Your task to perform on an android device: toggle improve location accuracy Image 0: 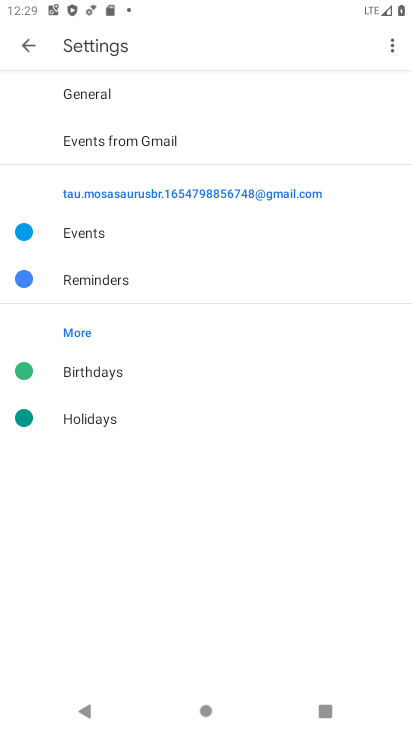
Step 0: press home button
Your task to perform on an android device: toggle improve location accuracy Image 1: 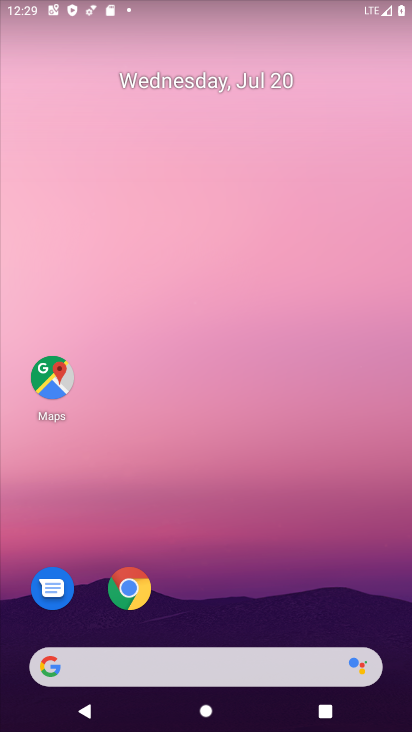
Step 1: drag from (391, 696) to (353, 111)
Your task to perform on an android device: toggle improve location accuracy Image 2: 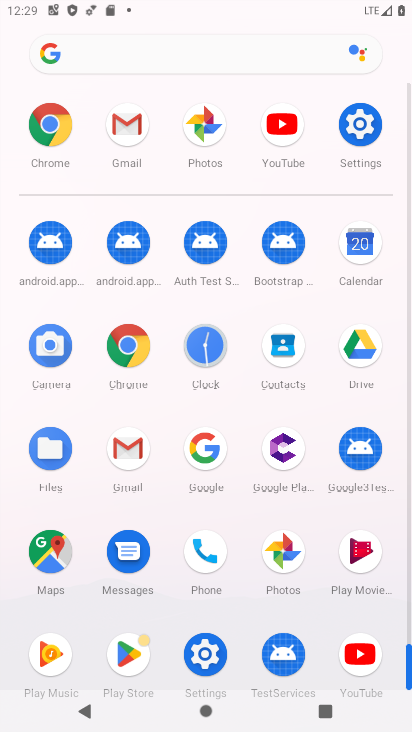
Step 2: click (199, 658)
Your task to perform on an android device: toggle improve location accuracy Image 3: 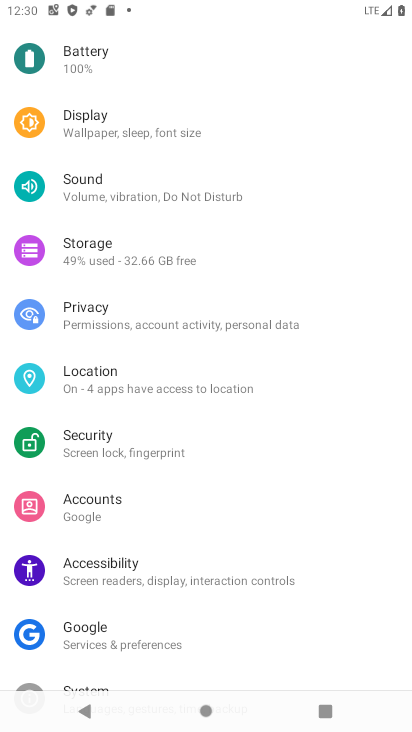
Step 3: click (76, 374)
Your task to perform on an android device: toggle improve location accuracy Image 4: 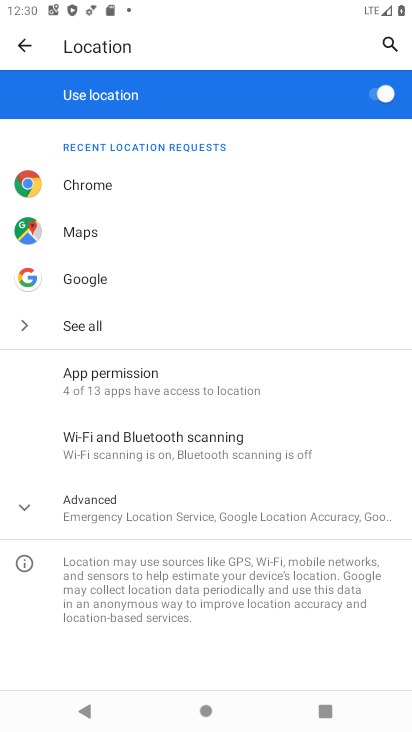
Step 4: click (26, 504)
Your task to perform on an android device: toggle improve location accuracy Image 5: 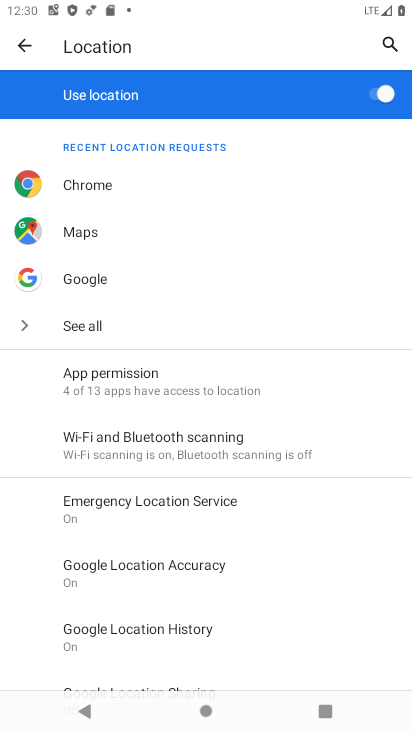
Step 5: click (128, 566)
Your task to perform on an android device: toggle improve location accuracy Image 6: 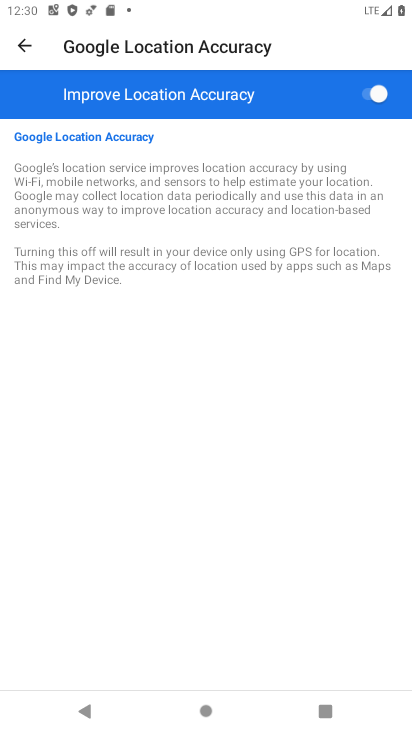
Step 6: click (363, 93)
Your task to perform on an android device: toggle improve location accuracy Image 7: 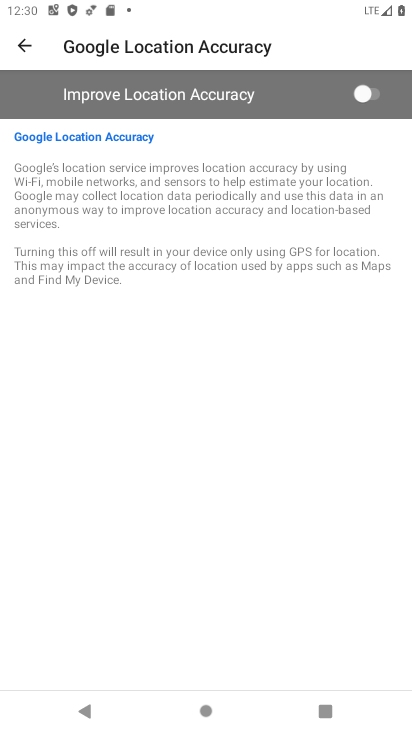
Step 7: task complete